Your task to perform on an android device: Find coffee shops on Maps Image 0: 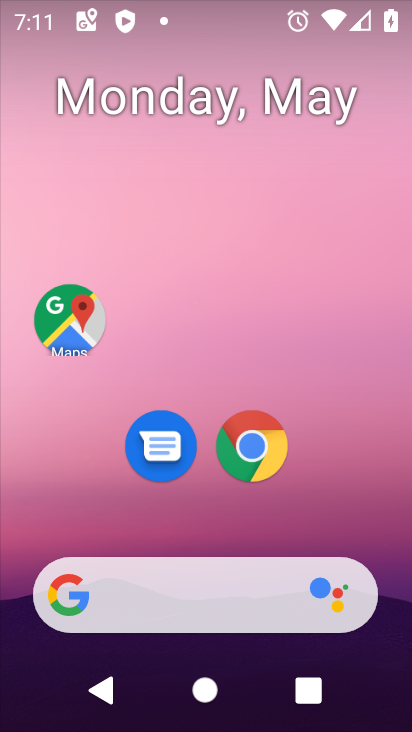
Step 0: click (82, 329)
Your task to perform on an android device: Find coffee shops on Maps Image 1: 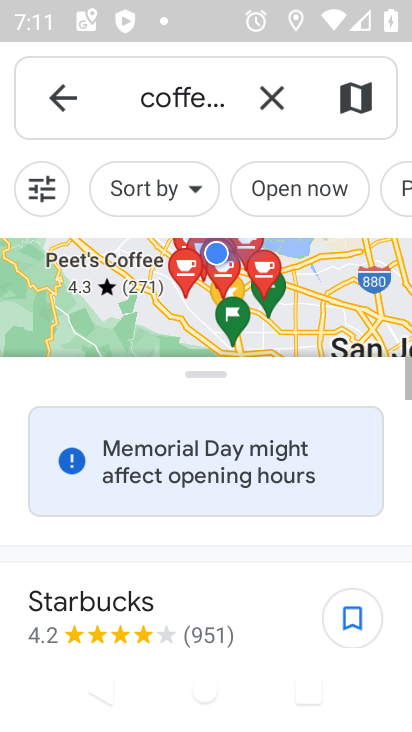
Step 1: task complete